Your task to perform on an android device: Clear all items from cart on newegg. Search for logitech g pro on newegg, select the first entry, and add it to the cart. Image 0: 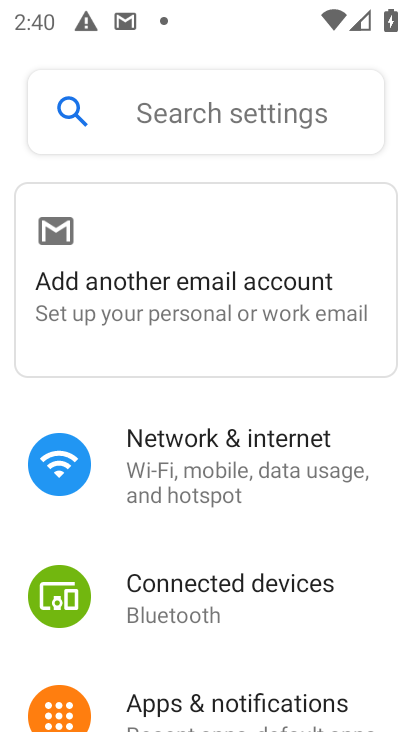
Step 0: press home button
Your task to perform on an android device: Clear all items from cart on newegg. Search for logitech g pro on newegg, select the first entry, and add it to the cart. Image 1: 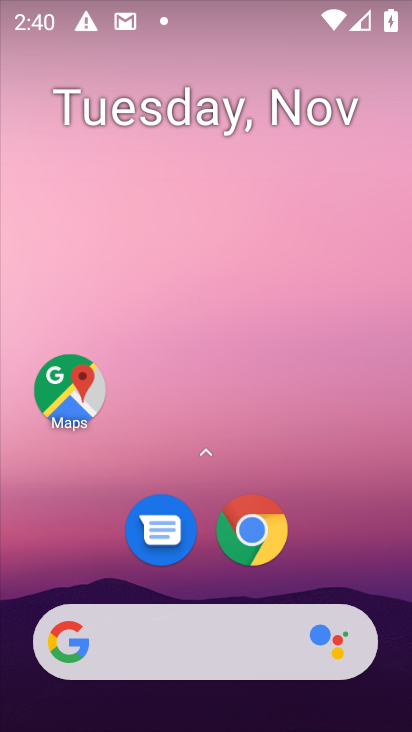
Step 1: drag from (259, 688) to (233, 79)
Your task to perform on an android device: Clear all items from cart on newegg. Search for logitech g pro on newegg, select the first entry, and add it to the cart. Image 2: 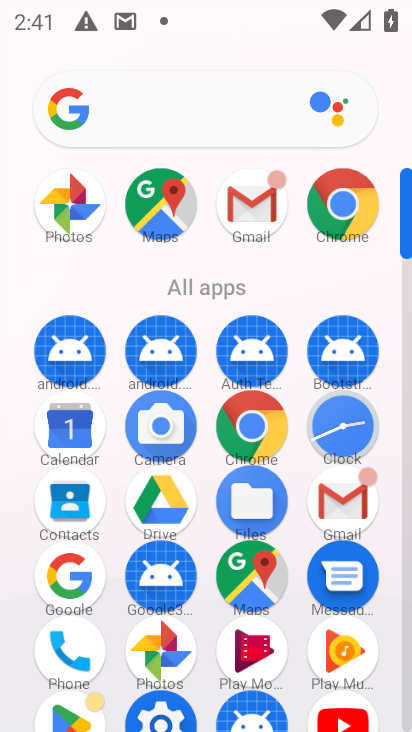
Step 2: click (231, 426)
Your task to perform on an android device: Clear all items from cart on newegg. Search for logitech g pro on newegg, select the first entry, and add it to the cart. Image 3: 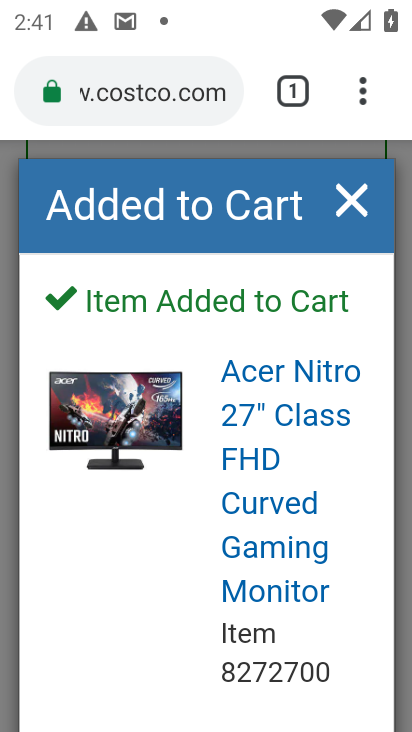
Step 3: click (160, 99)
Your task to perform on an android device: Clear all items from cart on newegg. Search for logitech g pro on newegg, select the first entry, and add it to the cart. Image 4: 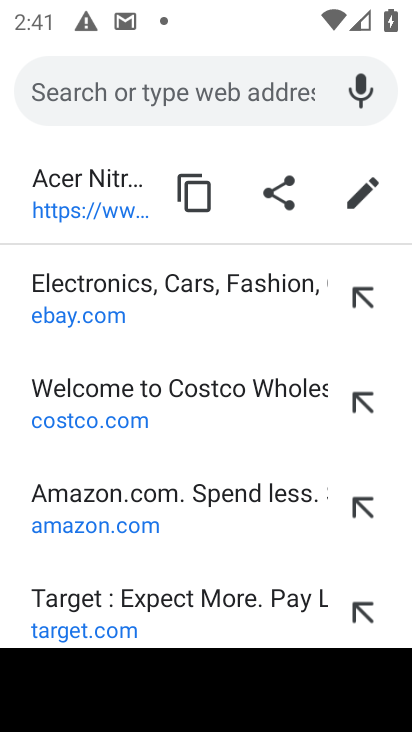
Step 4: type "newegg"
Your task to perform on an android device: Clear all items from cart on newegg. Search for logitech g pro on newegg, select the first entry, and add it to the cart. Image 5: 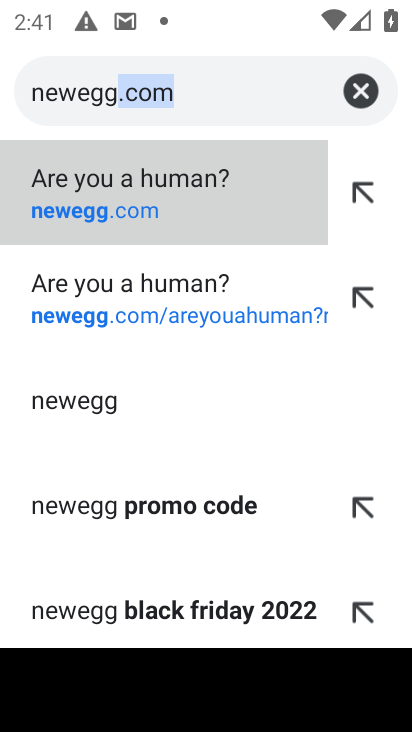
Step 5: click (104, 207)
Your task to perform on an android device: Clear all items from cart on newegg. Search for logitech g pro on newegg, select the first entry, and add it to the cart. Image 6: 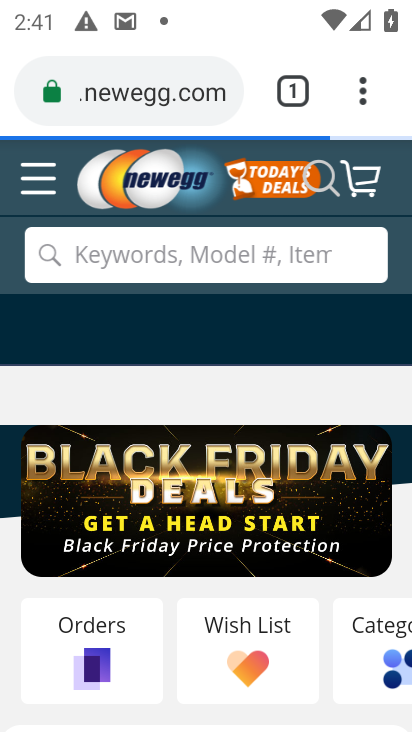
Step 6: drag from (174, 631) to (287, 610)
Your task to perform on an android device: Clear all items from cart on newegg. Search for logitech g pro on newegg, select the first entry, and add it to the cart. Image 7: 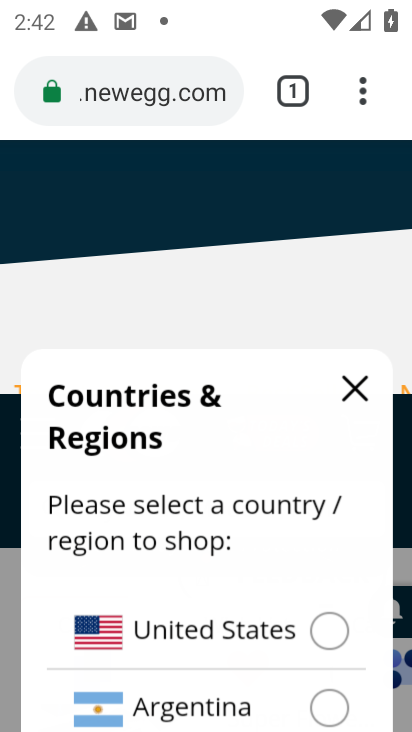
Step 7: click (350, 380)
Your task to perform on an android device: Clear all items from cart on newegg. Search for logitech g pro on newegg, select the first entry, and add it to the cart. Image 8: 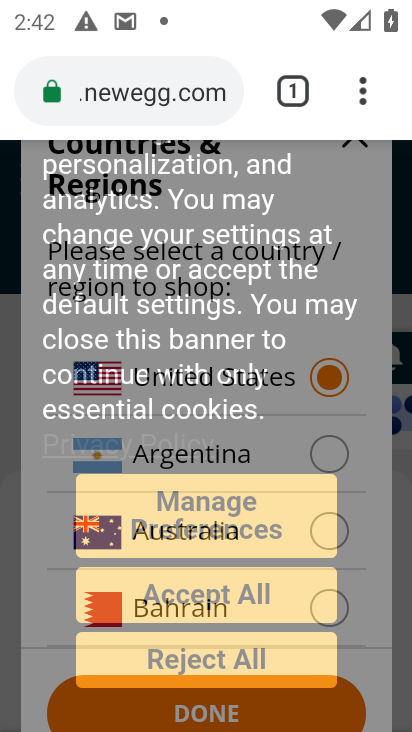
Step 8: click (346, 139)
Your task to perform on an android device: Clear all items from cart on newegg. Search for logitech g pro on newegg, select the first entry, and add it to the cart. Image 9: 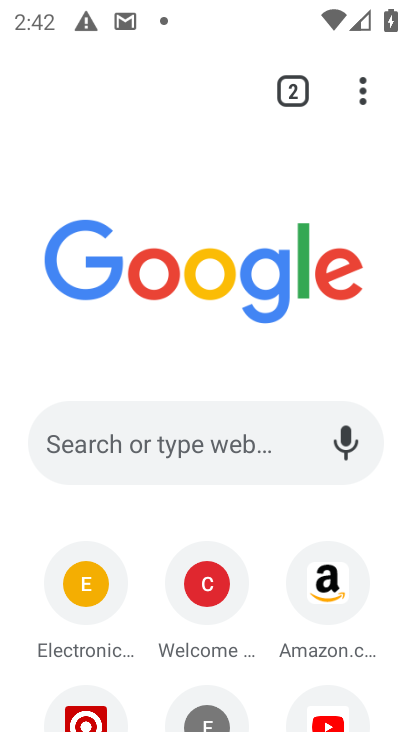
Step 9: click (201, 439)
Your task to perform on an android device: Clear all items from cart on newegg. Search for logitech g pro on newegg, select the first entry, and add it to the cart. Image 10: 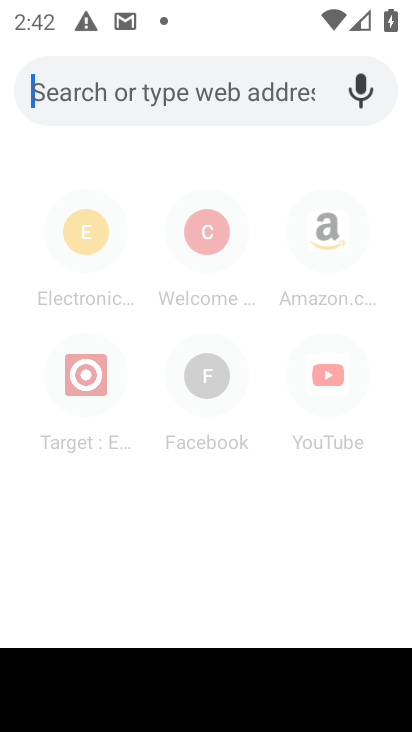
Step 10: type "newegg"
Your task to perform on an android device: Clear all items from cart on newegg. Search for logitech g pro on newegg, select the first entry, and add it to the cart. Image 11: 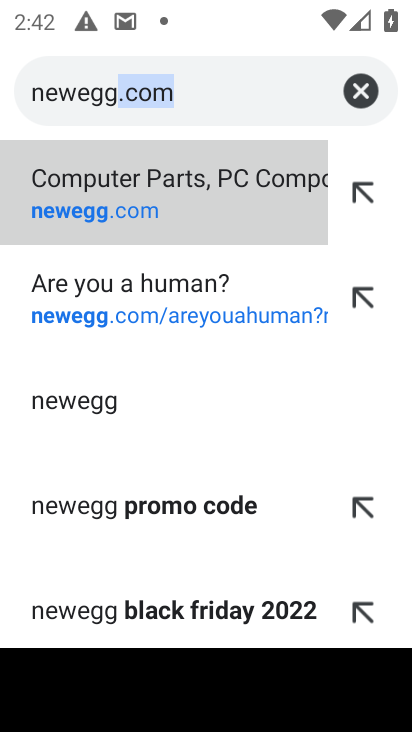
Step 11: click (47, 202)
Your task to perform on an android device: Clear all items from cart on newegg. Search for logitech g pro on newegg, select the first entry, and add it to the cart. Image 12: 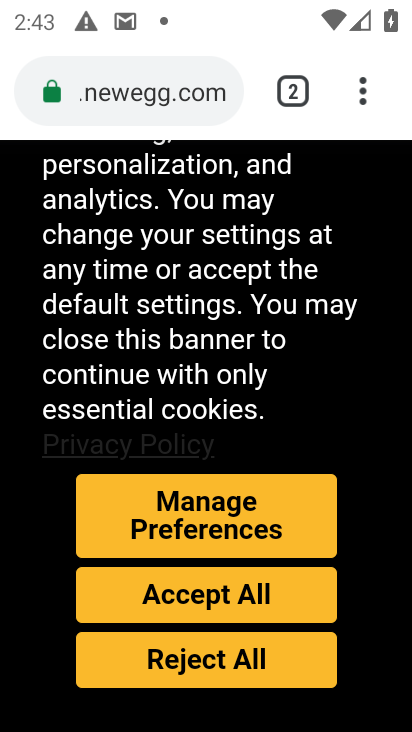
Step 12: click (216, 597)
Your task to perform on an android device: Clear all items from cart on newegg. Search for logitech g pro on newegg, select the first entry, and add it to the cart. Image 13: 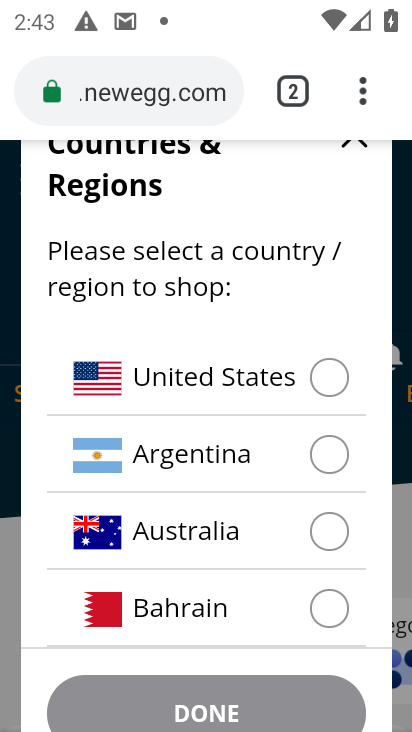
Step 13: click (360, 141)
Your task to perform on an android device: Clear all items from cart on newegg. Search for logitech g pro on newegg, select the first entry, and add it to the cart. Image 14: 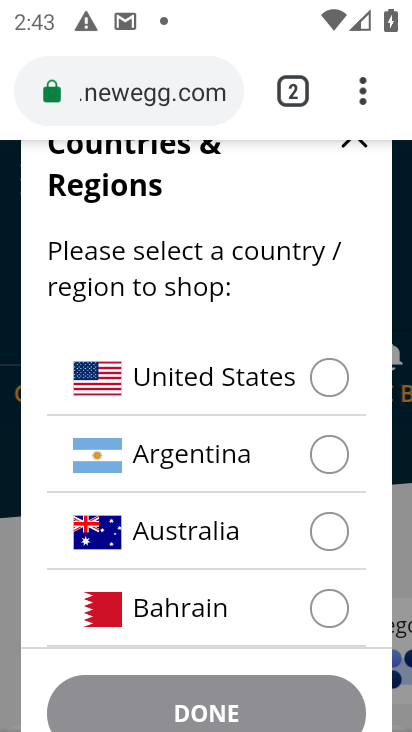
Step 14: click (336, 383)
Your task to perform on an android device: Clear all items from cart on newegg. Search for logitech g pro on newegg, select the first entry, and add it to the cart. Image 15: 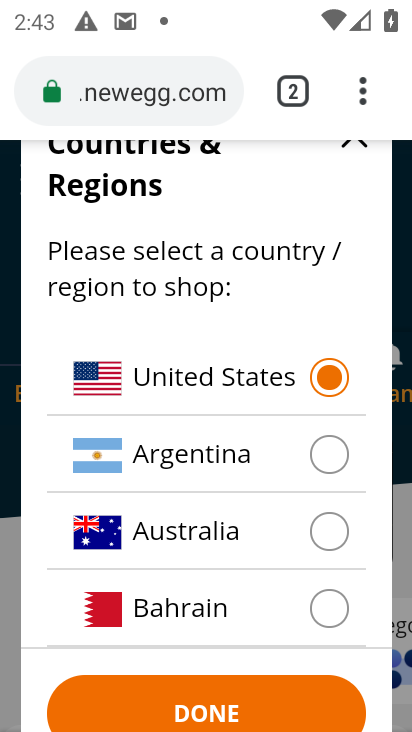
Step 15: click (269, 700)
Your task to perform on an android device: Clear all items from cart on newegg. Search for logitech g pro on newegg, select the first entry, and add it to the cart. Image 16: 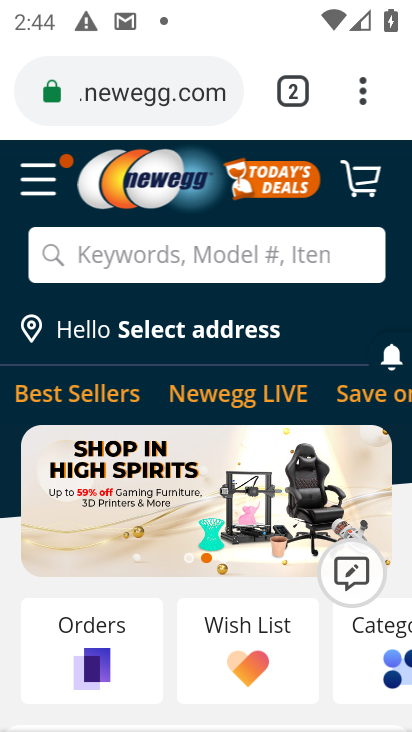
Step 16: click (364, 168)
Your task to perform on an android device: Clear all items from cart on newegg. Search for logitech g pro on newegg, select the first entry, and add it to the cart. Image 17: 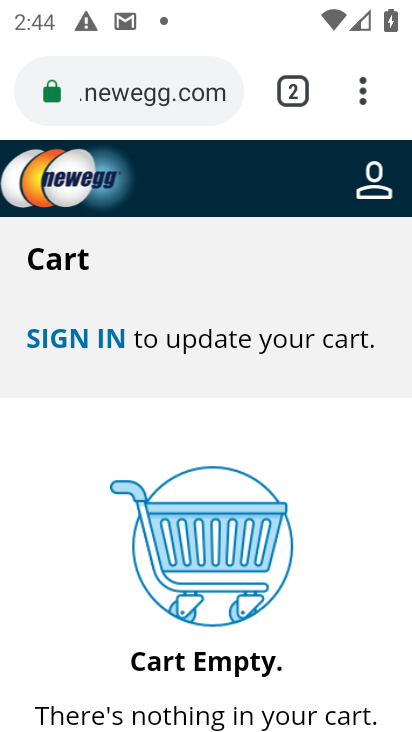
Step 17: press back button
Your task to perform on an android device: Clear all items from cart on newegg. Search for logitech g pro on newegg, select the first entry, and add it to the cart. Image 18: 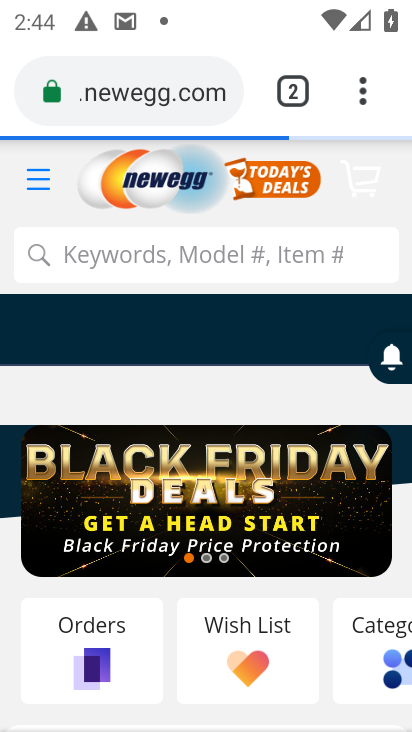
Step 18: click (199, 256)
Your task to perform on an android device: Clear all items from cart on newegg. Search for logitech g pro on newegg, select the first entry, and add it to the cart. Image 19: 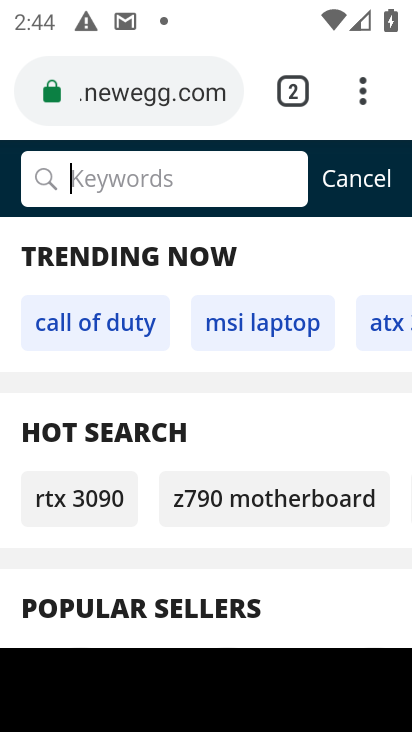
Step 19: type "logitech g pro "
Your task to perform on an android device: Clear all items from cart on newegg. Search for logitech g pro on newegg, select the first entry, and add it to the cart. Image 20: 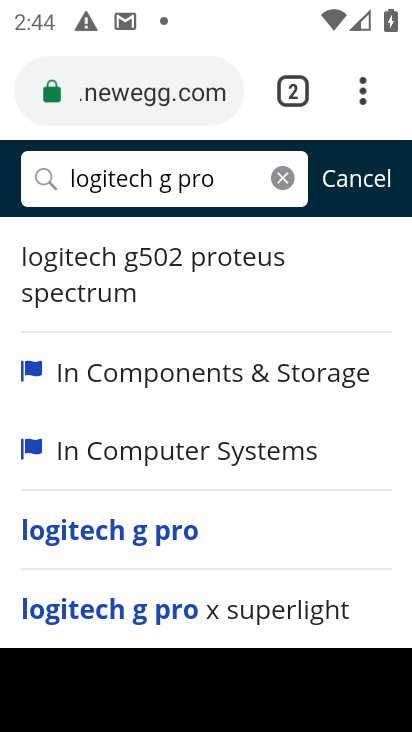
Step 20: click (43, 179)
Your task to perform on an android device: Clear all items from cart on newegg. Search for logitech g pro on newegg, select the first entry, and add it to the cart. Image 21: 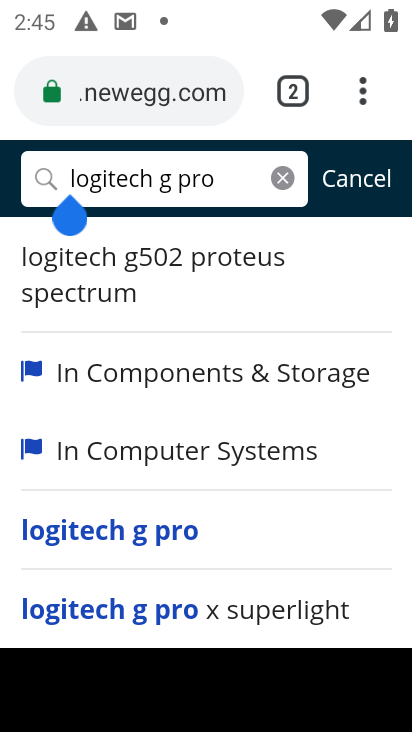
Step 21: click (34, 171)
Your task to perform on an android device: Clear all items from cart on newegg. Search for logitech g pro on newegg, select the first entry, and add it to the cart. Image 22: 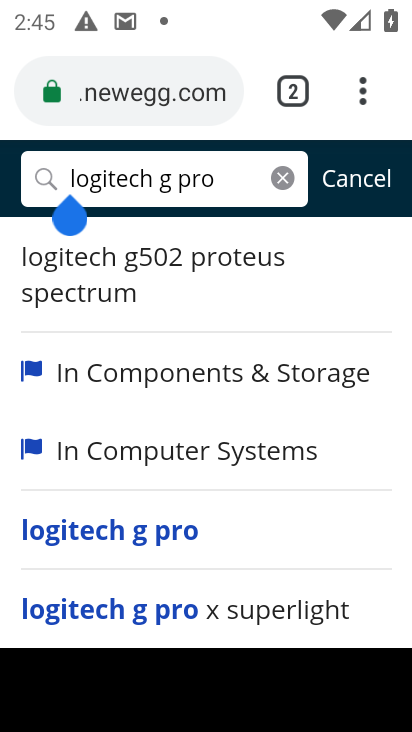
Step 22: click (40, 172)
Your task to perform on an android device: Clear all items from cart on newegg. Search for logitech g pro on newegg, select the first entry, and add it to the cart. Image 23: 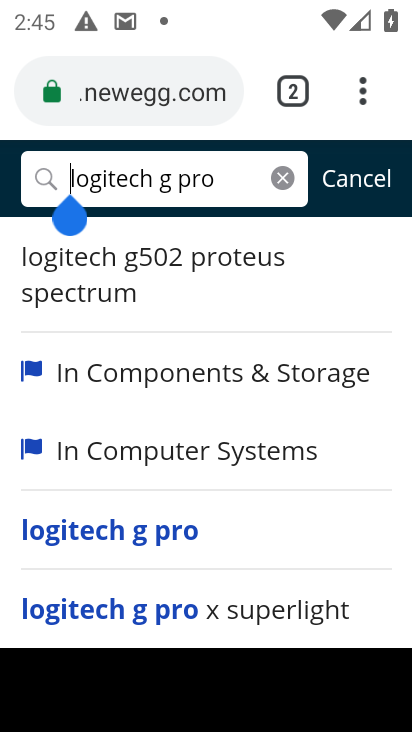
Step 23: click (118, 526)
Your task to perform on an android device: Clear all items from cart on newegg. Search for logitech g pro on newegg, select the first entry, and add it to the cart. Image 24: 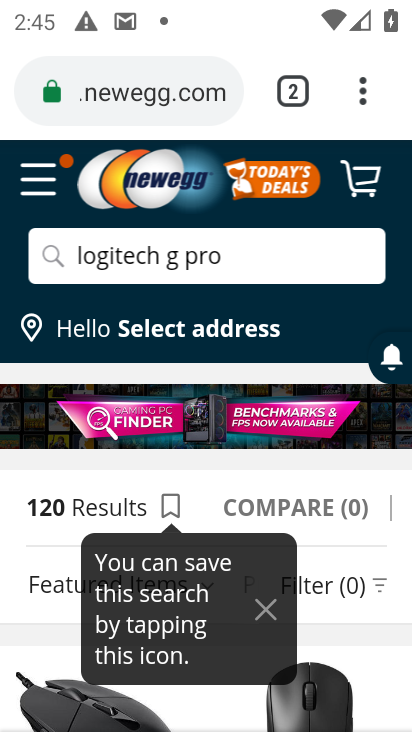
Step 24: drag from (355, 564) to (335, 255)
Your task to perform on an android device: Clear all items from cart on newegg. Search for logitech g pro on newegg, select the first entry, and add it to the cart. Image 25: 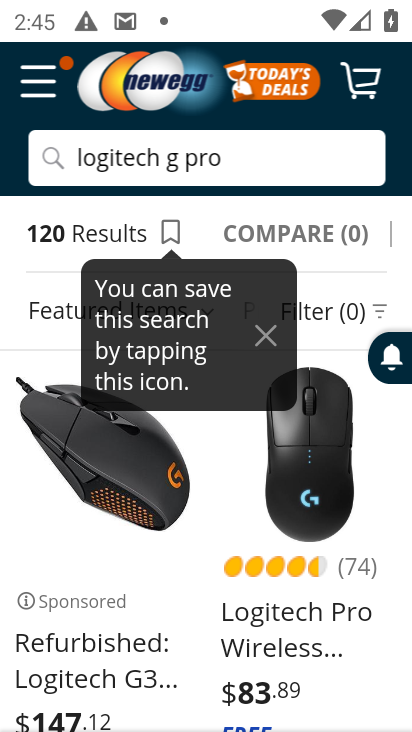
Step 25: click (104, 457)
Your task to perform on an android device: Clear all items from cart on newegg. Search for logitech g pro on newegg, select the first entry, and add it to the cart. Image 26: 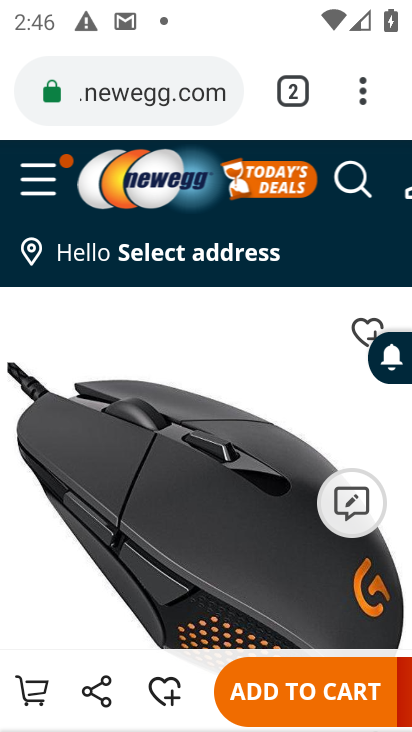
Step 26: drag from (80, 454) to (61, 218)
Your task to perform on an android device: Clear all items from cart on newegg. Search for logitech g pro on newegg, select the first entry, and add it to the cart. Image 27: 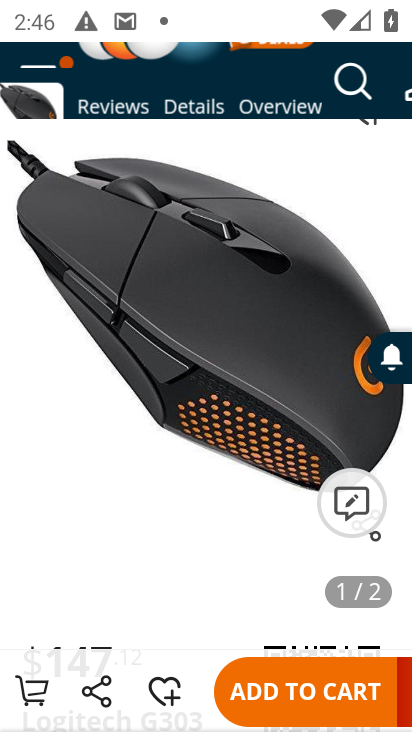
Step 27: drag from (56, 441) to (153, 25)
Your task to perform on an android device: Clear all items from cart on newegg. Search for logitech g pro on newegg, select the first entry, and add it to the cart. Image 28: 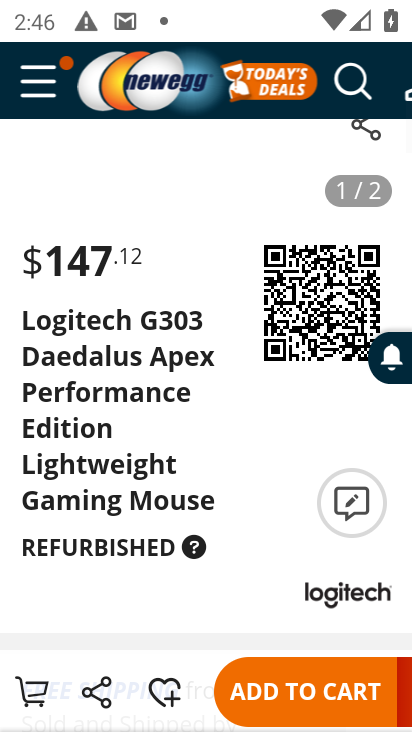
Step 28: drag from (211, 498) to (209, 349)
Your task to perform on an android device: Clear all items from cart on newegg. Search for logitech g pro on newegg, select the first entry, and add it to the cart. Image 29: 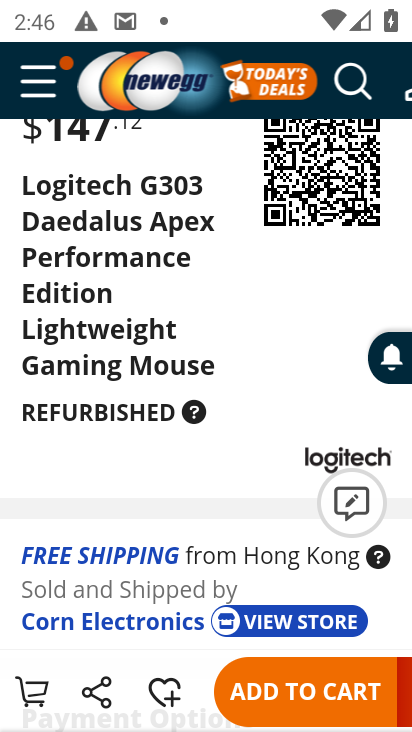
Step 29: click (283, 688)
Your task to perform on an android device: Clear all items from cart on newegg. Search for logitech g pro on newegg, select the first entry, and add it to the cart. Image 30: 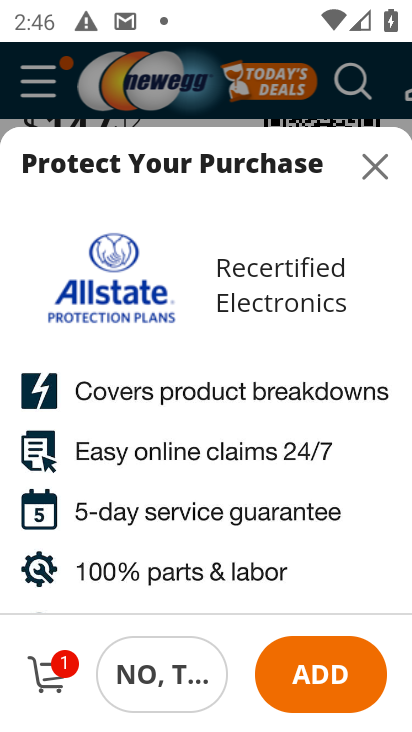
Step 30: task complete